Your task to perform on an android device: create a new album in the google photos Image 0: 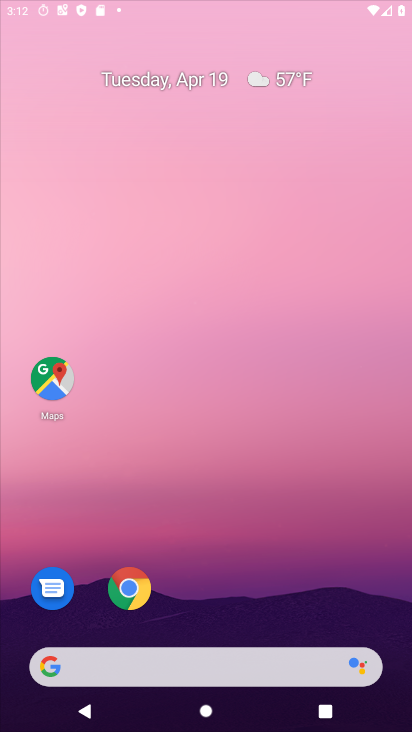
Step 0: drag from (343, 20) to (387, 204)
Your task to perform on an android device: create a new album in the google photos Image 1: 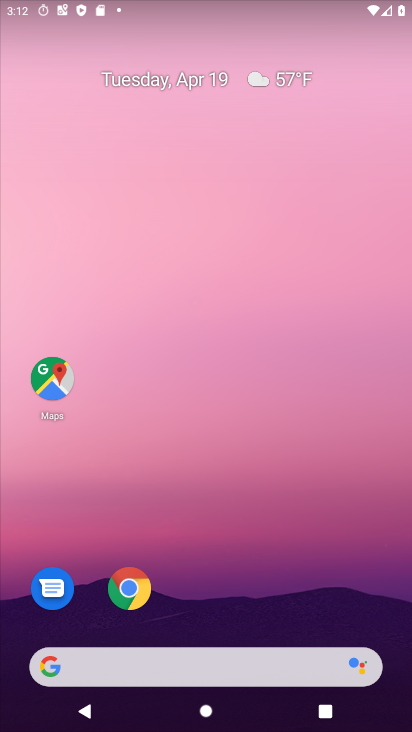
Step 1: drag from (214, 481) to (246, 139)
Your task to perform on an android device: create a new album in the google photos Image 2: 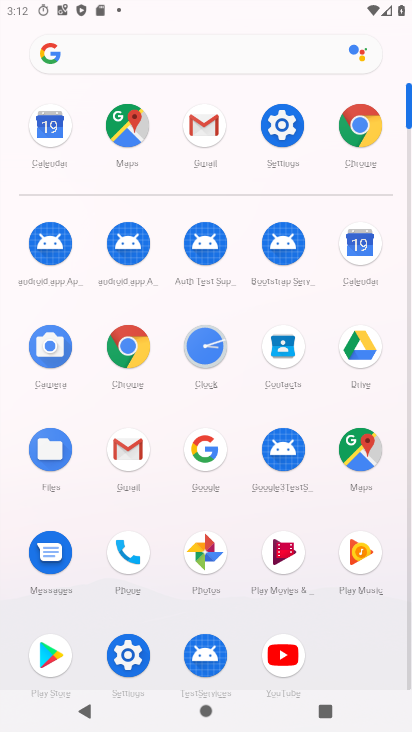
Step 2: click (207, 556)
Your task to perform on an android device: create a new album in the google photos Image 3: 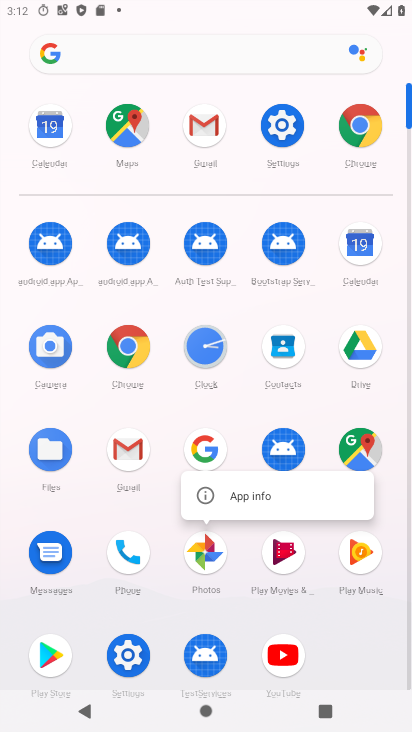
Step 3: click (251, 497)
Your task to perform on an android device: create a new album in the google photos Image 4: 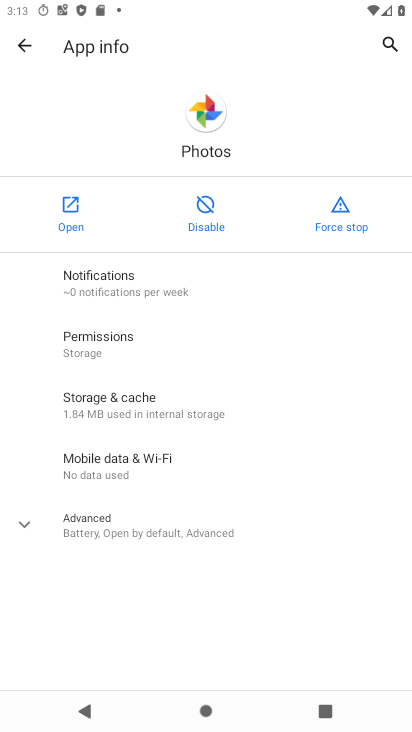
Step 4: click (64, 217)
Your task to perform on an android device: create a new album in the google photos Image 5: 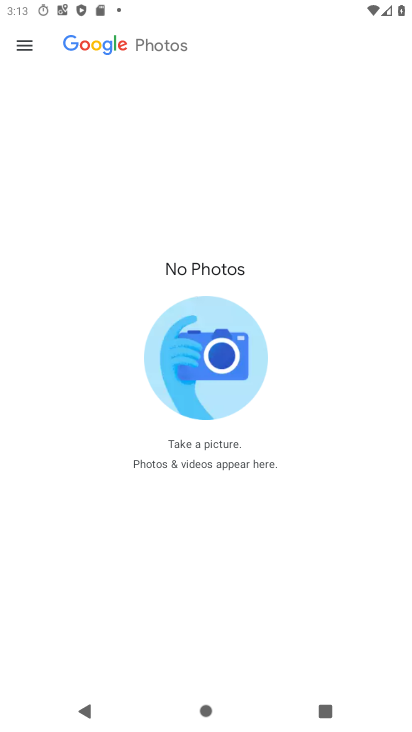
Step 5: click (218, 531)
Your task to perform on an android device: create a new album in the google photos Image 6: 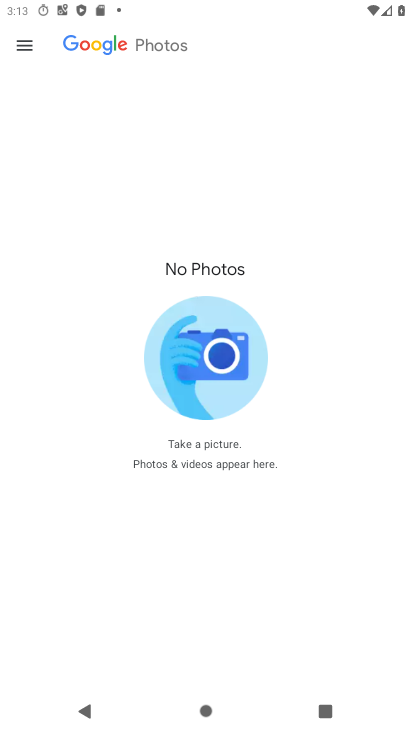
Step 6: click (25, 40)
Your task to perform on an android device: create a new album in the google photos Image 7: 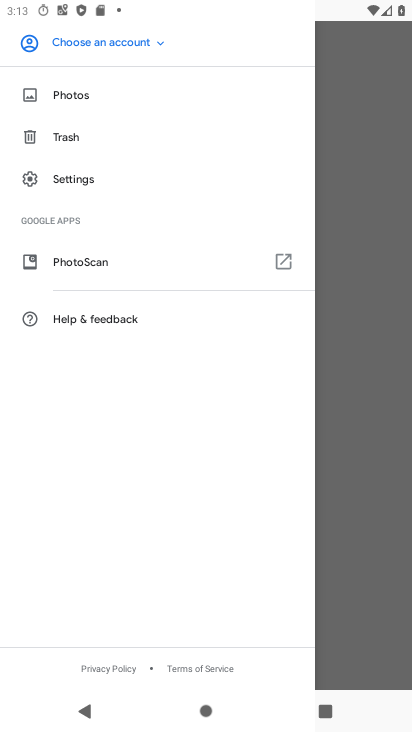
Step 7: click (92, 174)
Your task to perform on an android device: create a new album in the google photos Image 8: 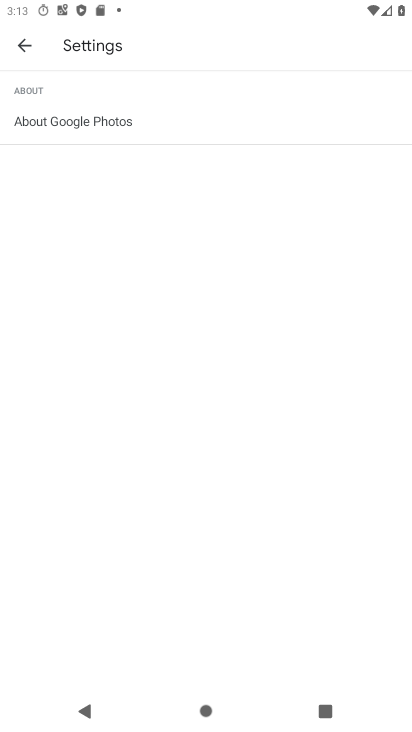
Step 8: click (29, 48)
Your task to perform on an android device: create a new album in the google photos Image 9: 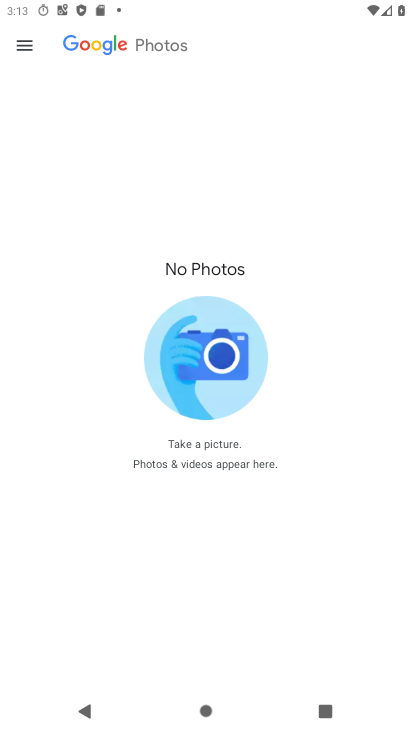
Step 9: click (30, 44)
Your task to perform on an android device: create a new album in the google photos Image 10: 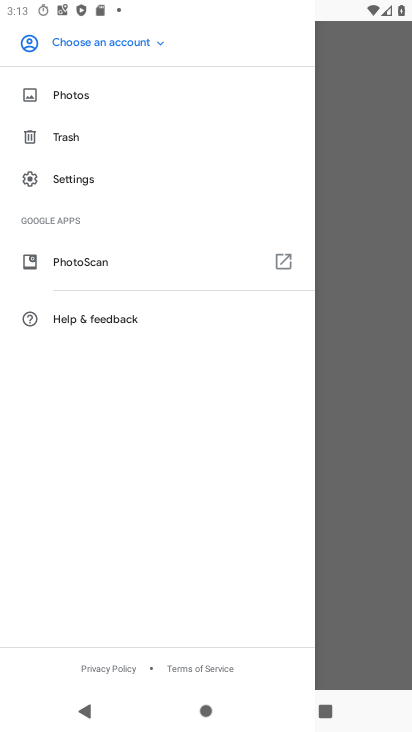
Step 10: click (89, 93)
Your task to perform on an android device: create a new album in the google photos Image 11: 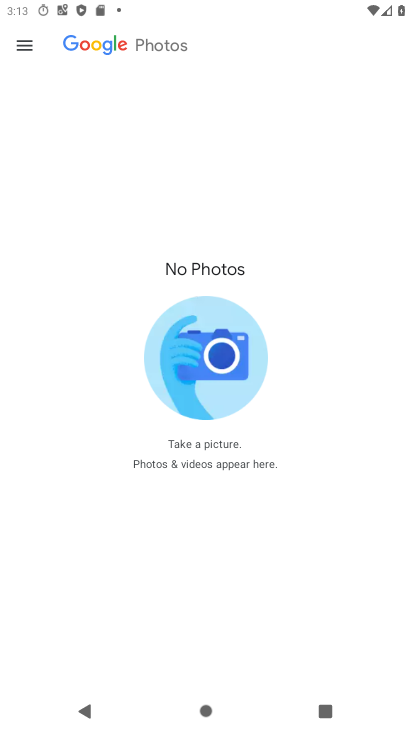
Step 11: task complete